Your task to perform on an android device: Go to Reddit.com Image 0: 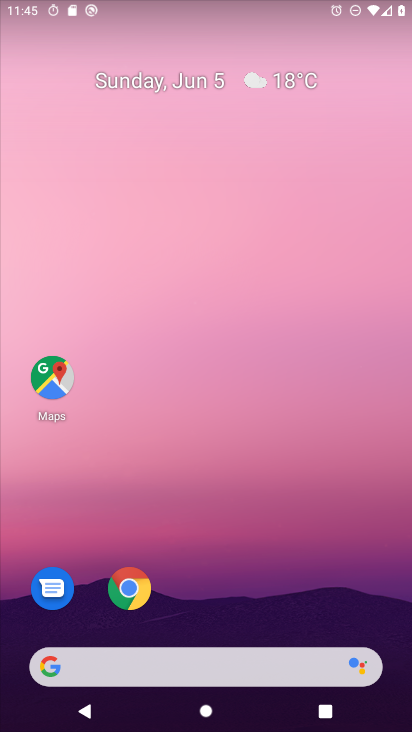
Step 0: drag from (376, 593) to (389, 238)
Your task to perform on an android device: Go to Reddit.com Image 1: 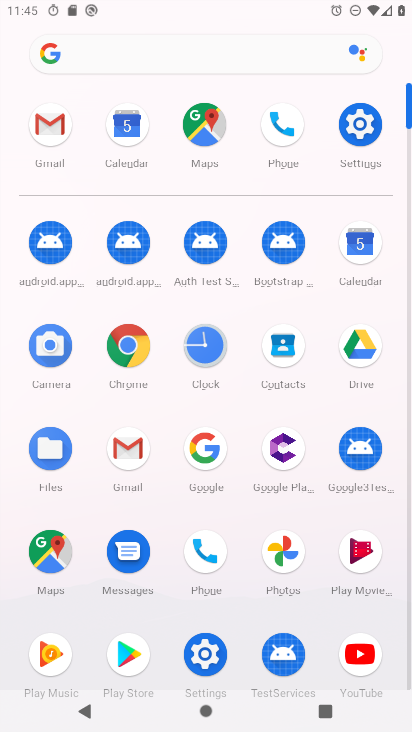
Step 1: click (134, 354)
Your task to perform on an android device: Go to Reddit.com Image 2: 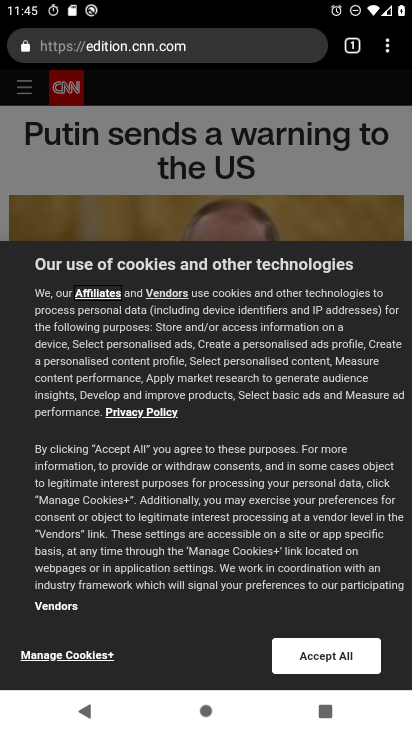
Step 2: click (189, 42)
Your task to perform on an android device: Go to Reddit.com Image 3: 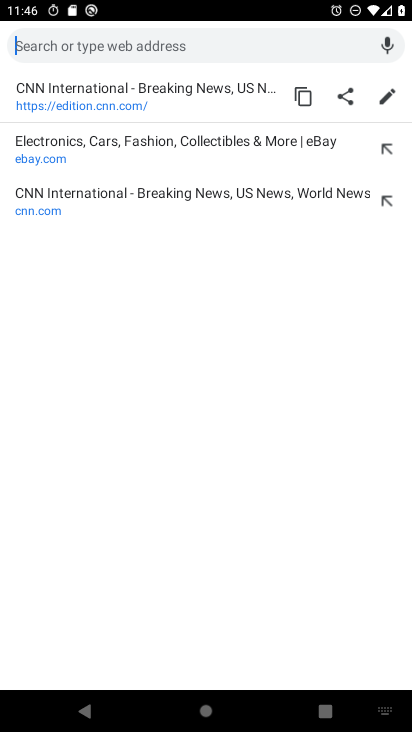
Step 3: type "reddditcom"
Your task to perform on an android device: Go to Reddit.com Image 4: 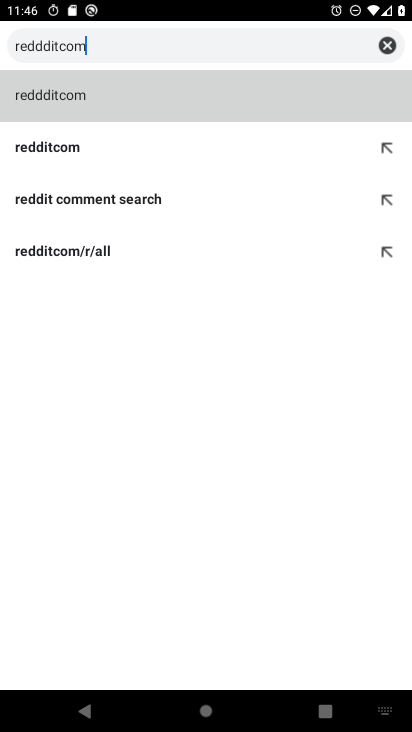
Step 4: click (69, 157)
Your task to perform on an android device: Go to Reddit.com Image 5: 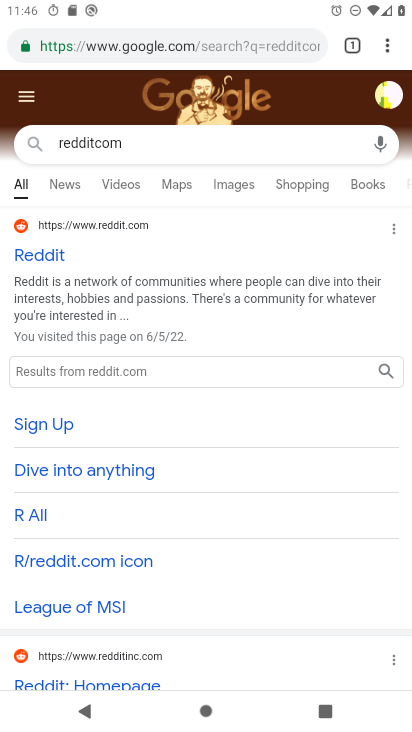
Step 5: task complete